Your task to perform on an android device: Open wifi settings Image 0: 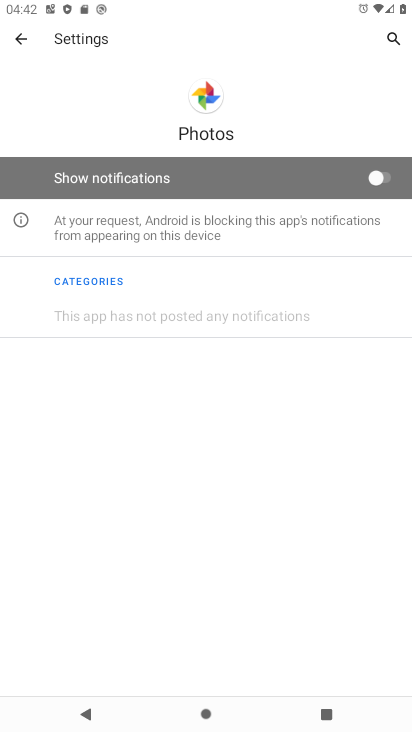
Step 0: drag from (194, 18) to (122, 669)
Your task to perform on an android device: Open wifi settings Image 1: 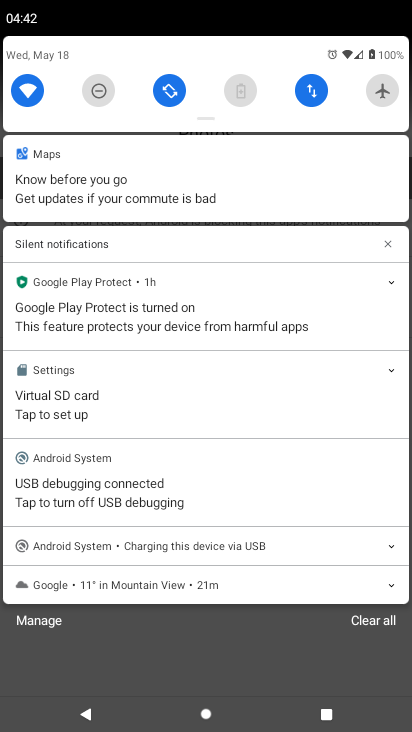
Step 1: click (30, 97)
Your task to perform on an android device: Open wifi settings Image 2: 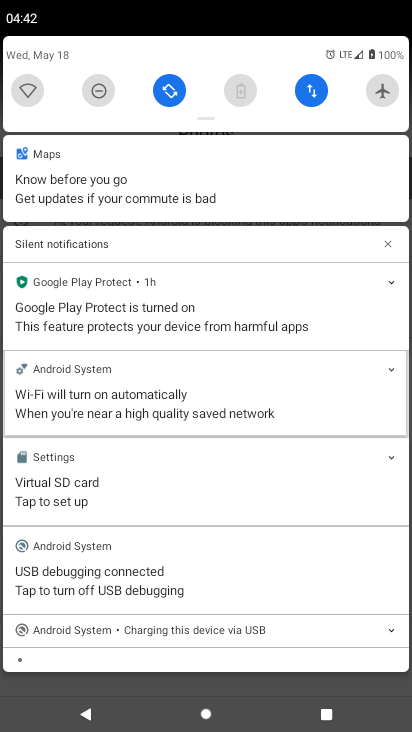
Step 2: click (30, 97)
Your task to perform on an android device: Open wifi settings Image 3: 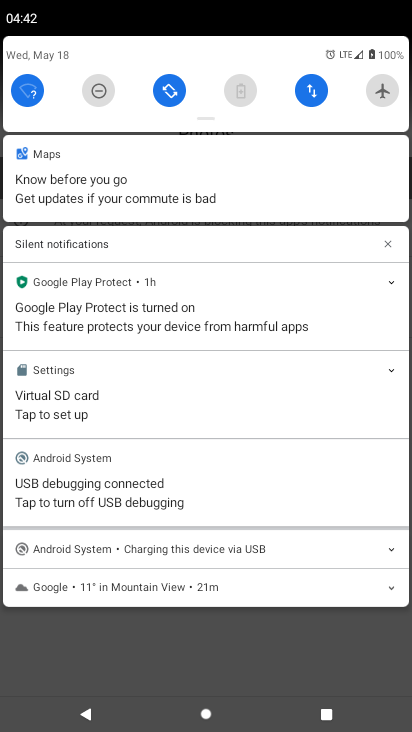
Step 3: click (30, 97)
Your task to perform on an android device: Open wifi settings Image 4: 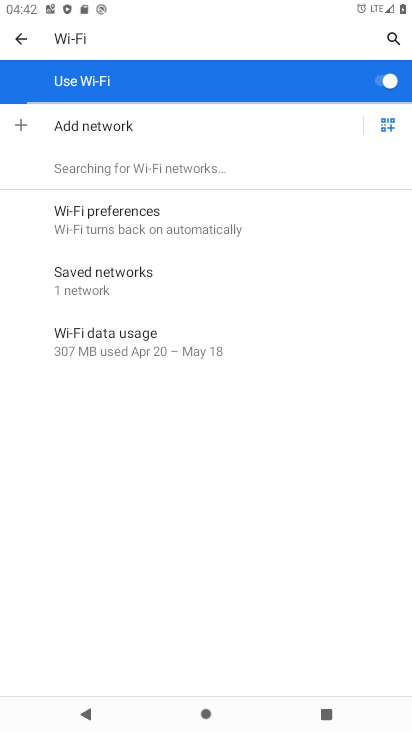
Step 4: task complete